Your task to perform on an android device: Do I have any events today? Image 0: 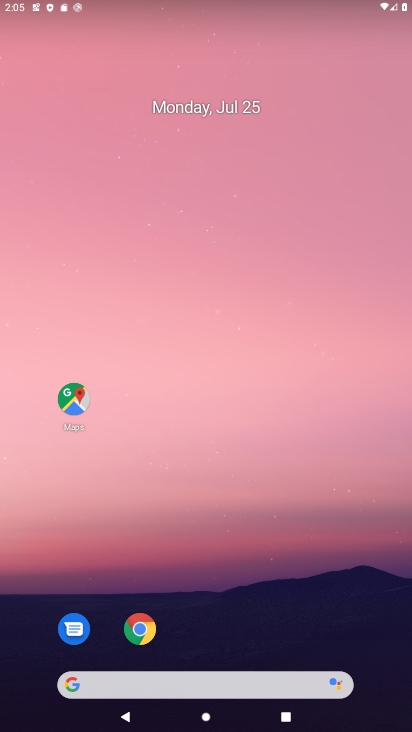
Step 0: click (290, 197)
Your task to perform on an android device: Do I have any events today? Image 1: 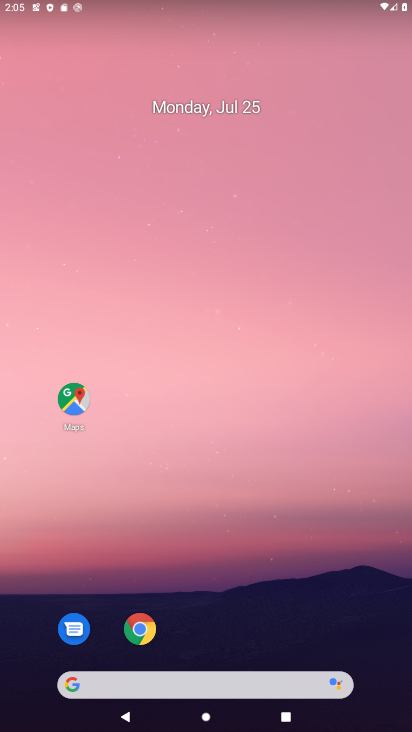
Step 1: drag from (176, 623) to (259, 245)
Your task to perform on an android device: Do I have any events today? Image 2: 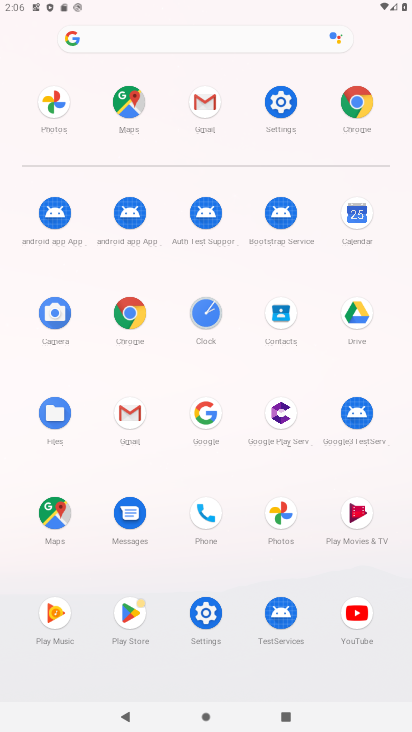
Step 2: click (347, 201)
Your task to perform on an android device: Do I have any events today? Image 3: 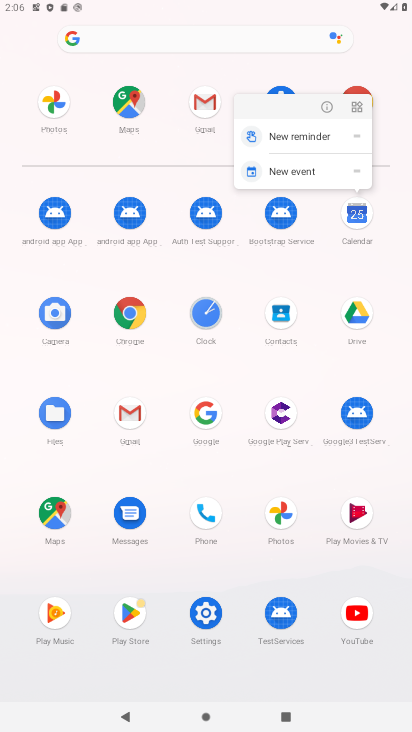
Step 3: click (322, 97)
Your task to perform on an android device: Do I have any events today? Image 4: 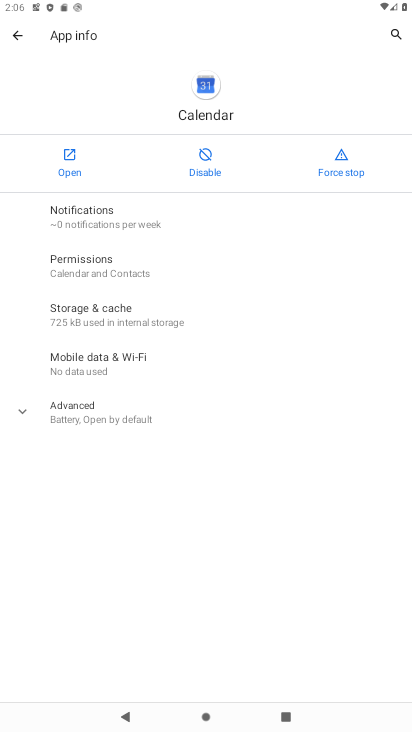
Step 4: click (79, 142)
Your task to perform on an android device: Do I have any events today? Image 5: 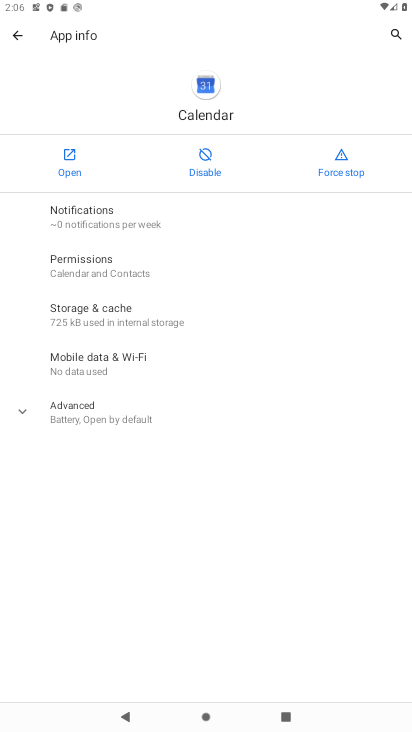
Step 5: click (79, 142)
Your task to perform on an android device: Do I have any events today? Image 6: 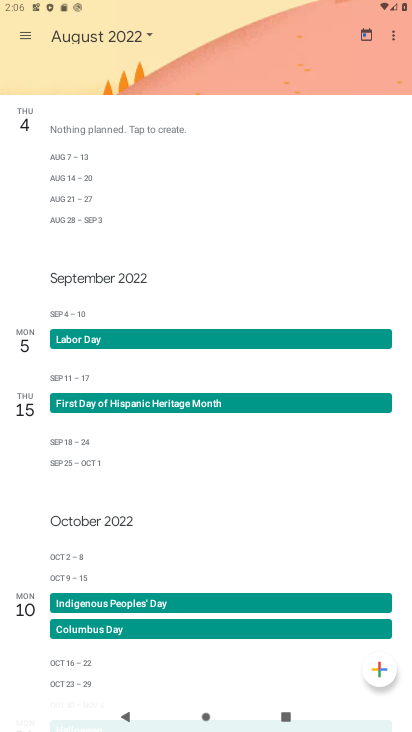
Step 6: drag from (87, 523) to (234, 250)
Your task to perform on an android device: Do I have any events today? Image 7: 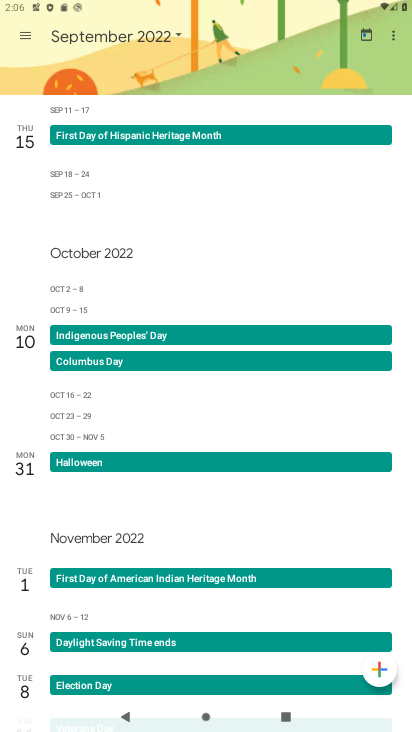
Step 7: drag from (174, 429) to (232, 685)
Your task to perform on an android device: Do I have any events today? Image 8: 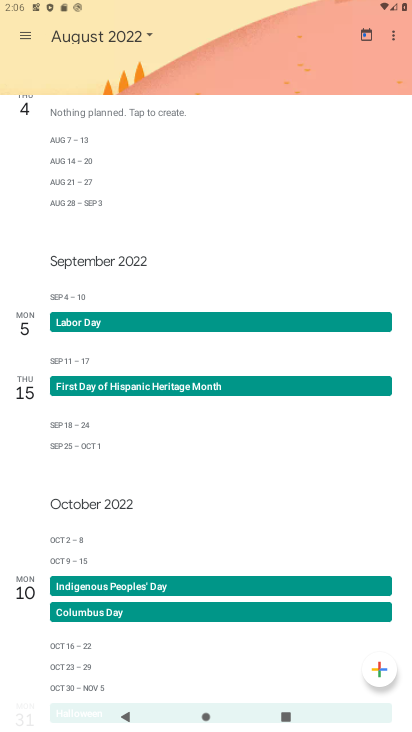
Step 8: click (359, 28)
Your task to perform on an android device: Do I have any events today? Image 9: 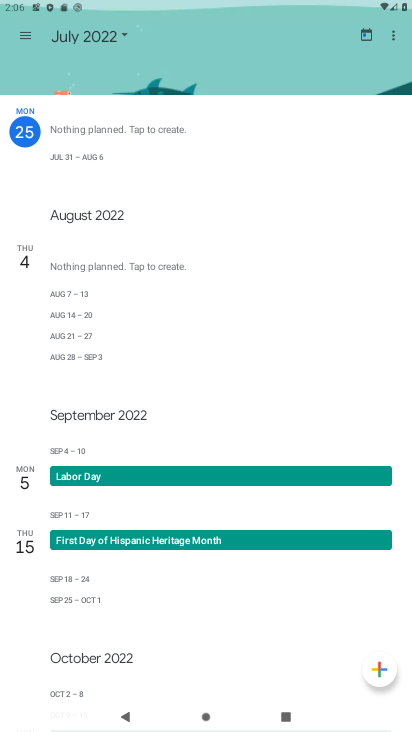
Step 9: click (177, 427)
Your task to perform on an android device: Do I have any events today? Image 10: 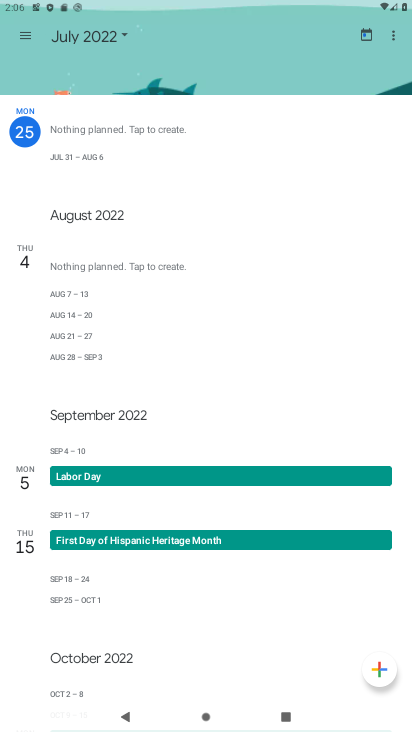
Step 10: task complete